Your task to perform on an android device: turn on javascript in the chrome app Image 0: 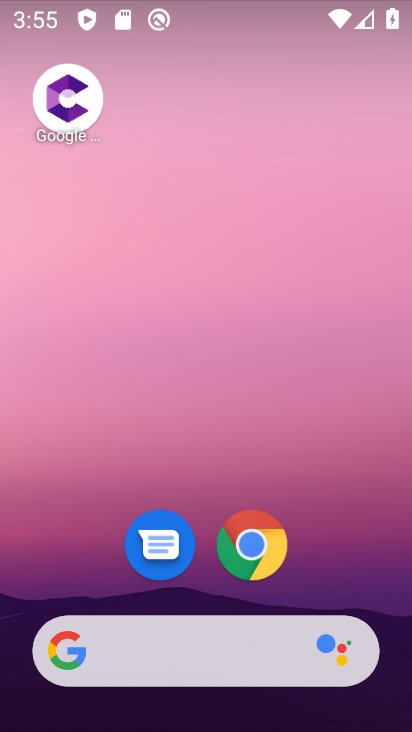
Step 0: click (254, 547)
Your task to perform on an android device: turn on javascript in the chrome app Image 1: 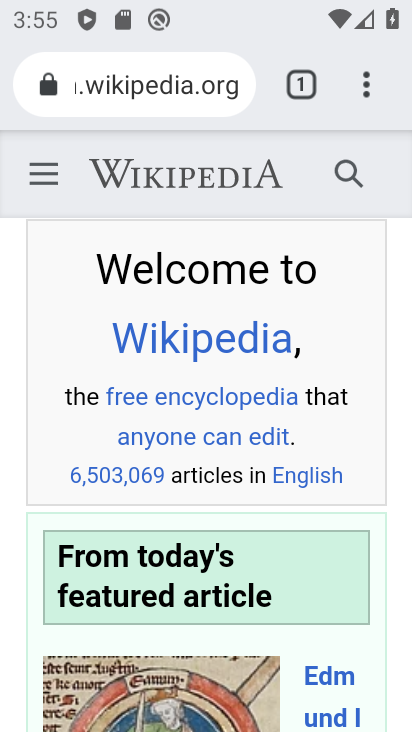
Step 1: click (365, 83)
Your task to perform on an android device: turn on javascript in the chrome app Image 2: 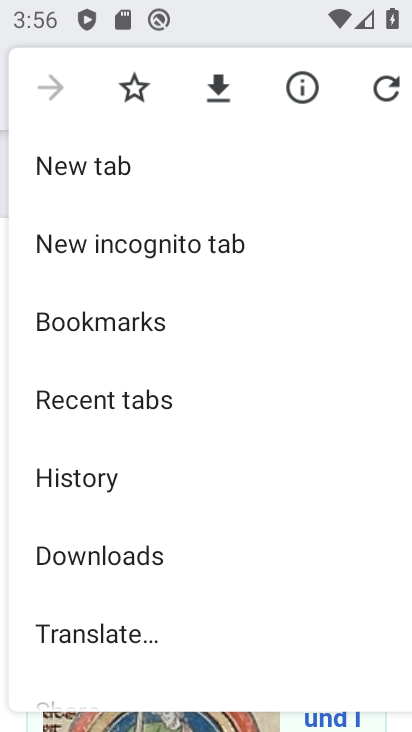
Step 2: drag from (139, 497) to (187, 381)
Your task to perform on an android device: turn on javascript in the chrome app Image 3: 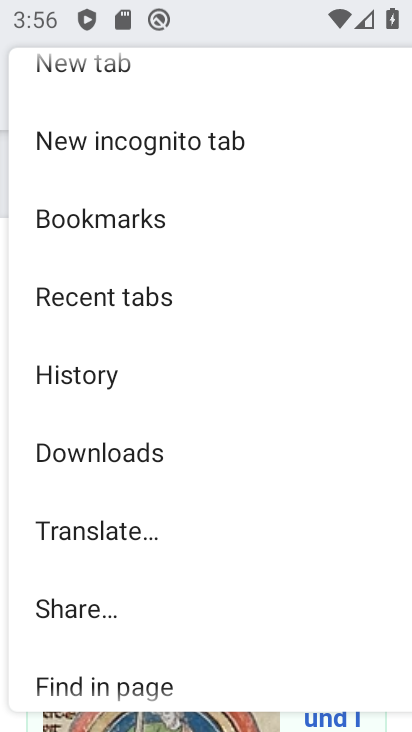
Step 3: drag from (121, 496) to (181, 410)
Your task to perform on an android device: turn on javascript in the chrome app Image 4: 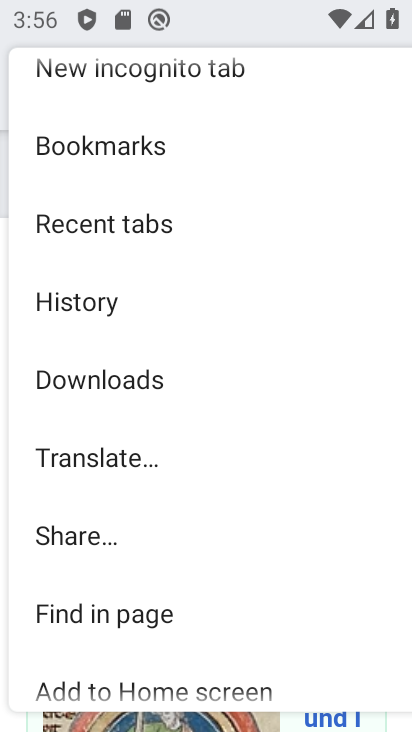
Step 4: drag from (99, 503) to (145, 431)
Your task to perform on an android device: turn on javascript in the chrome app Image 5: 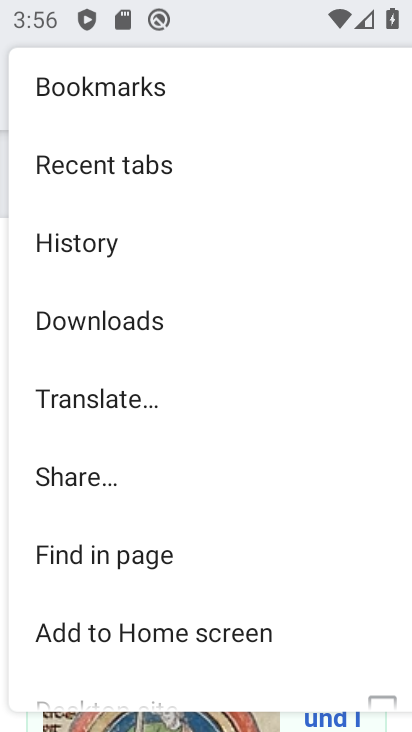
Step 5: drag from (95, 525) to (160, 431)
Your task to perform on an android device: turn on javascript in the chrome app Image 6: 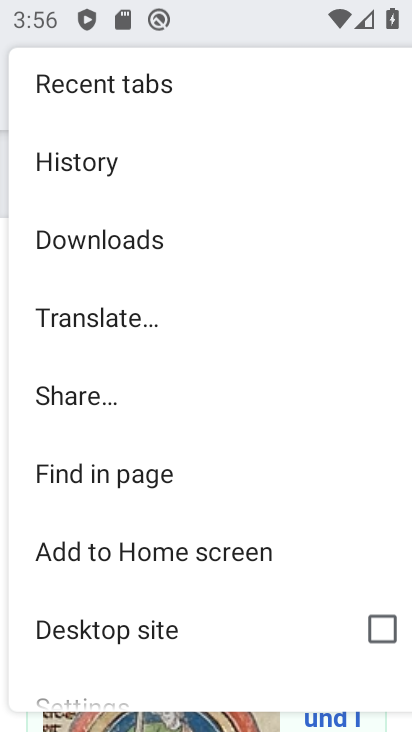
Step 6: drag from (95, 578) to (184, 473)
Your task to perform on an android device: turn on javascript in the chrome app Image 7: 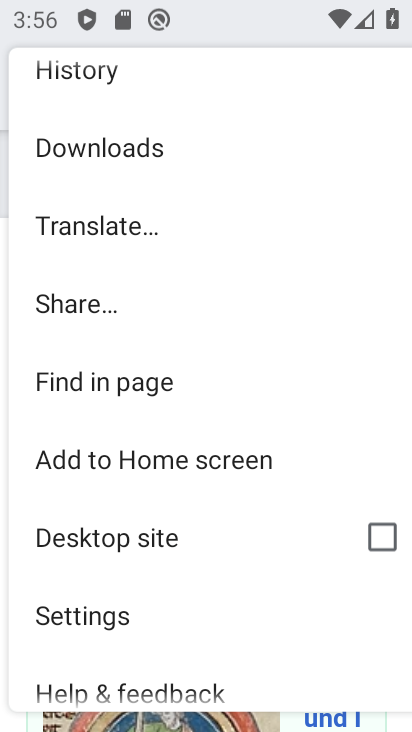
Step 7: drag from (95, 572) to (170, 459)
Your task to perform on an android device: turn on javascript in the chrome app Image 8: 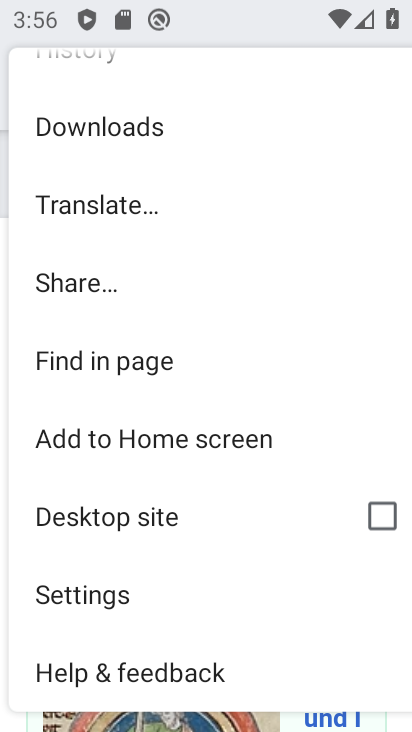
Step 8: click (100, 598)
Your task to perform on an android device: turn on javascript in the chrome app Image 9: 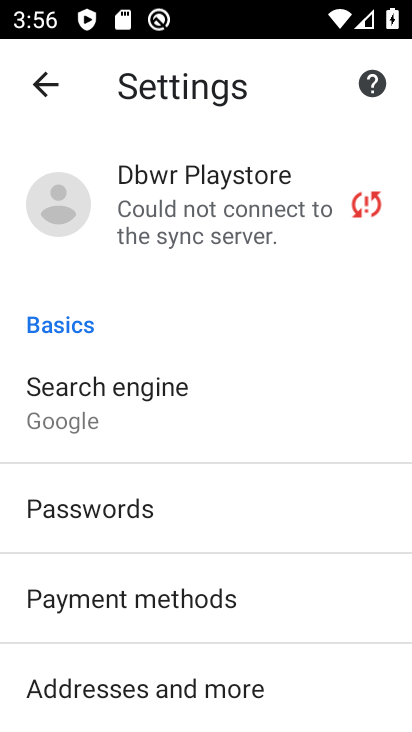
Step 9: drag from (105, 570) to (177, 444)
Your task to perform on an android device: turn on javascript in the chrome app Image 10: 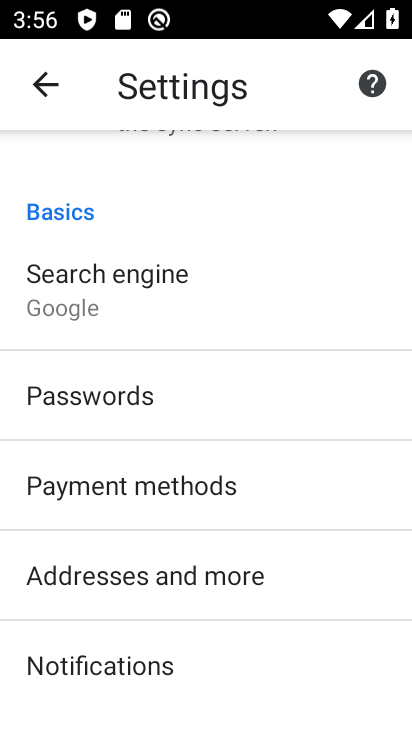
Step 10: drag from (95, 618) to (208, 479)
Your task to perform on an android device: turn on javascript in the chrome app Image 11: 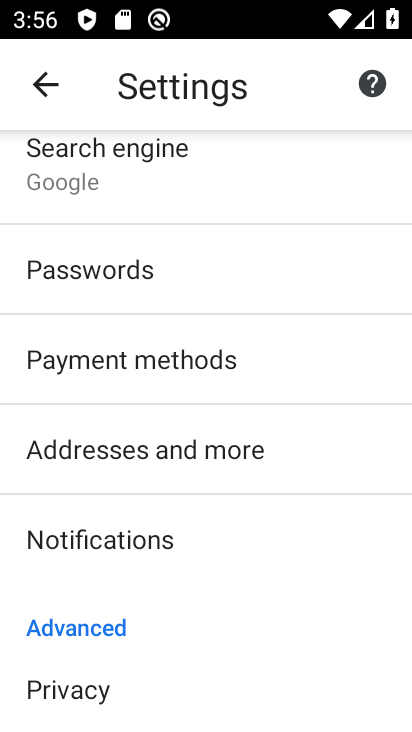
Step 11: drag from (99, 595) to (199, 472)
Your task to perform on an android device: turn on javascript in the chrome app Image 12: 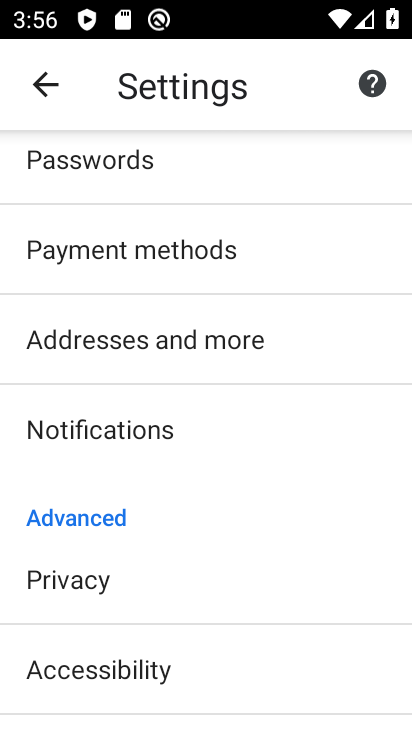
Step 12: drag from (104, 612) to (206, 500)
Your task to perform on an android device: turn on javascript in the chrome app Image 13: 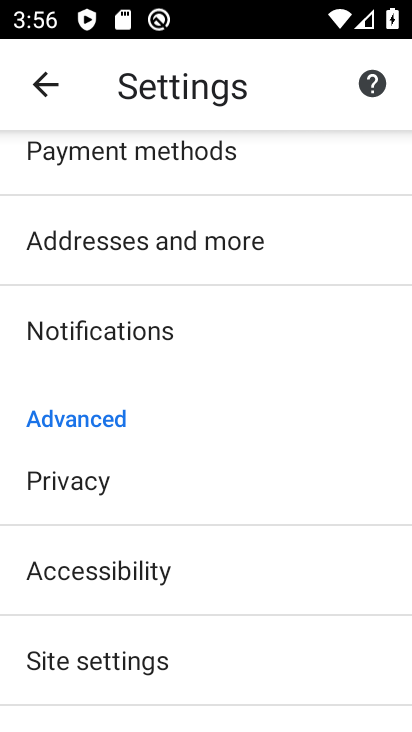
Step 13: drag from (89, 638) to (201, 518)
Your task to perform on an android device: turn on javascript in the chrome app Image 14: 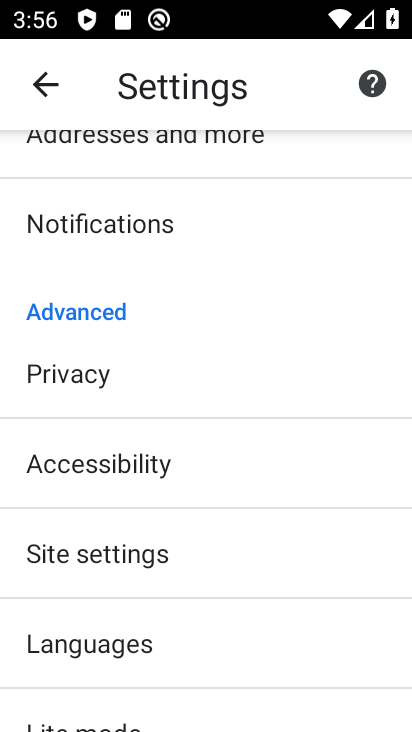
Step 14: click (149, 553)
Your task to perform on an android device: turn on javascript in the chrome app Image 15: 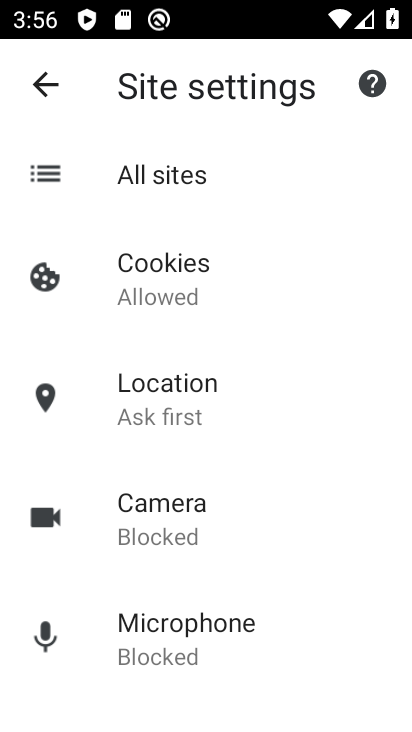
Step 15: drag from (198, 578) to (251, 487)
Your task to perform on an android device: turn on javascript in the chrome app Image 16: 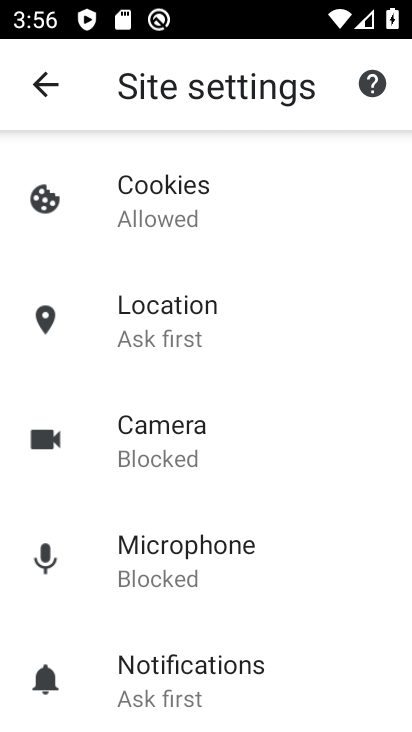
Step 16: drag from (186, 615) to (252, 513)
Your task to perform on an android device: turn on javascript in the chrome app Image 17: 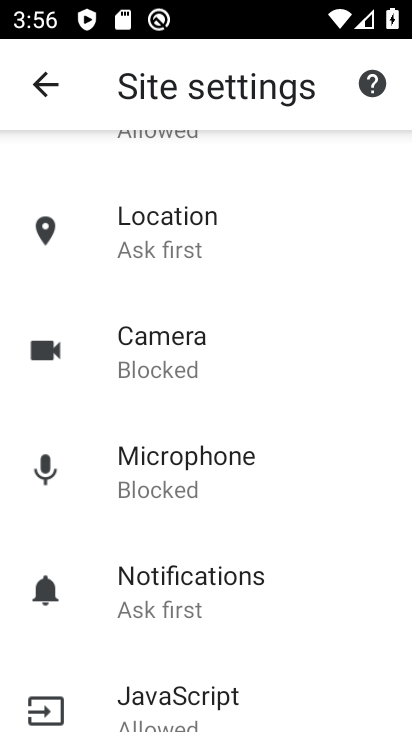
Step 17: drag from (172, 640) to (267, 521)
Your task to perform on an android device: turn on javascript in the chrome app Image 18: 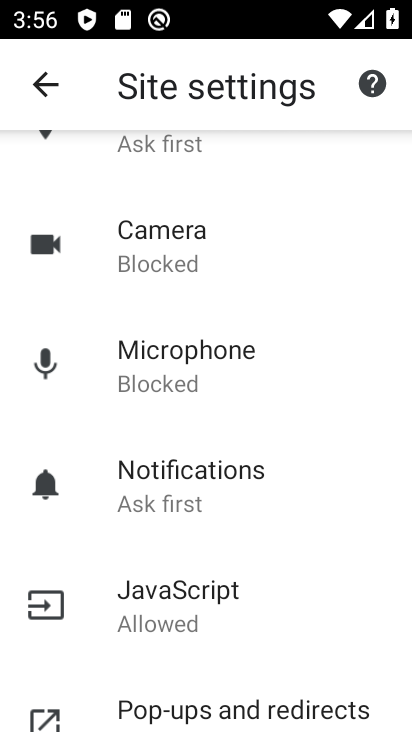
Step 18: click (209, 597)
Your task to perform on an android device: turn on javascript in the chrome app Image 19: 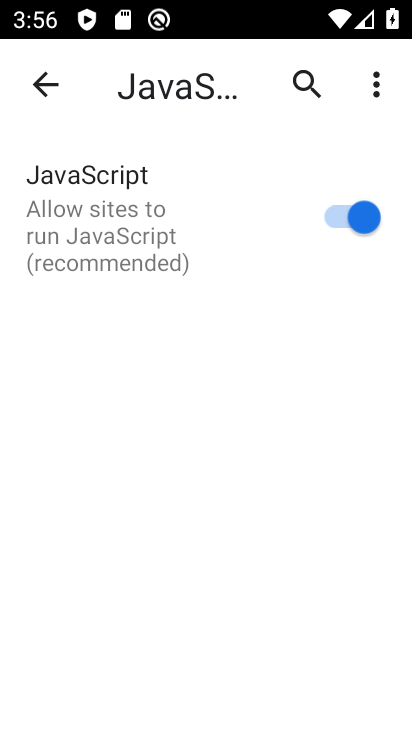
Step 19: task complete